Your task to perform on an android device: make emails show in primary in the gmail app Image 0: 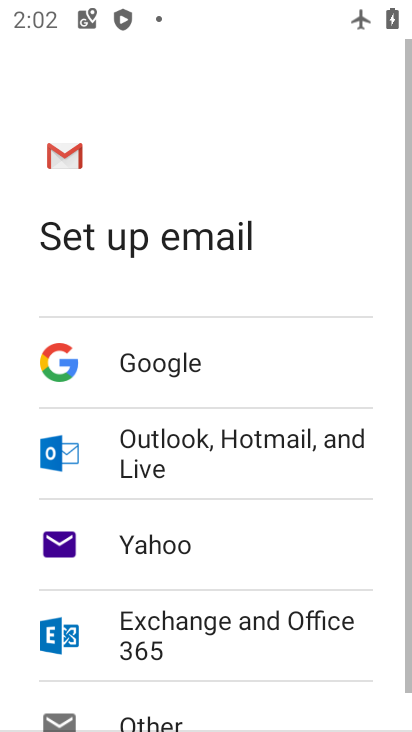
Step 0: press home button
Your task to perform on an android device: make emails show in primary in the gmail app Image 1: 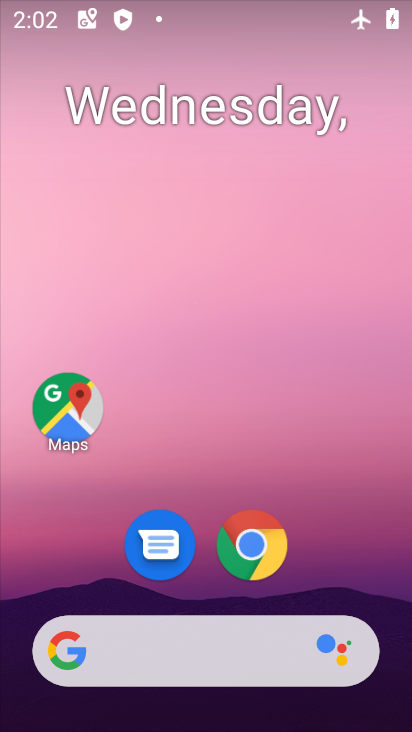
Step 1: drag from (361, 514) to (318, 14)
Your task to perform on an android device: make emails show in primary in the gmail app Image 2: 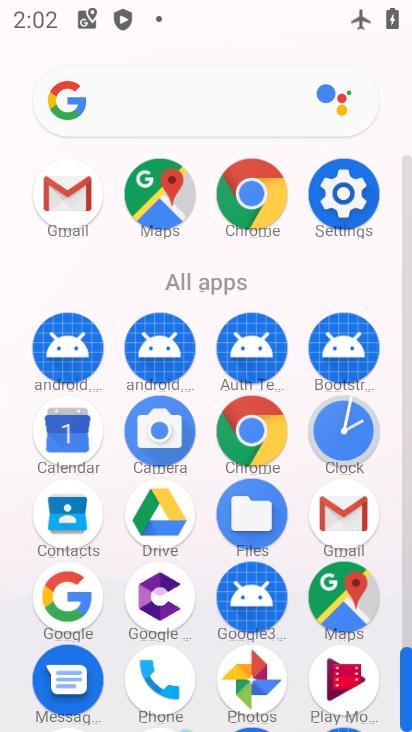
Step 2: click (74, 190)
Your task to perform on an android device: make emails show in primary in the gmail app Image 3: 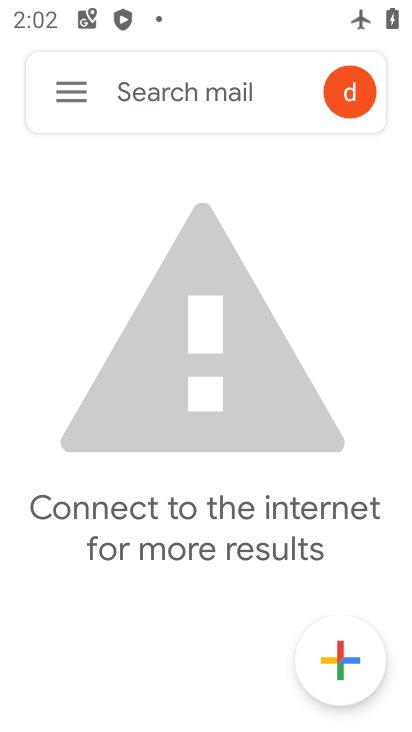
Step 3: click (53, 105)
Your task to perform on an android device: make emails show in primary in the gmail app Image 4: 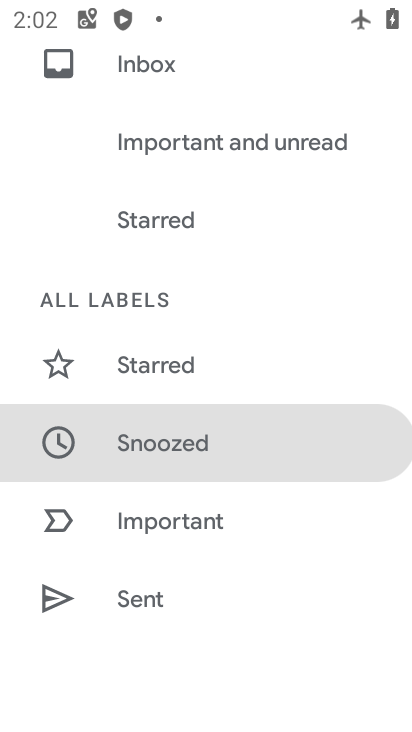
Step 4: drag from (188, 519) to (251, 70)
Your task to perform on an android device: make emails show in primary in the gmail app Image 5: 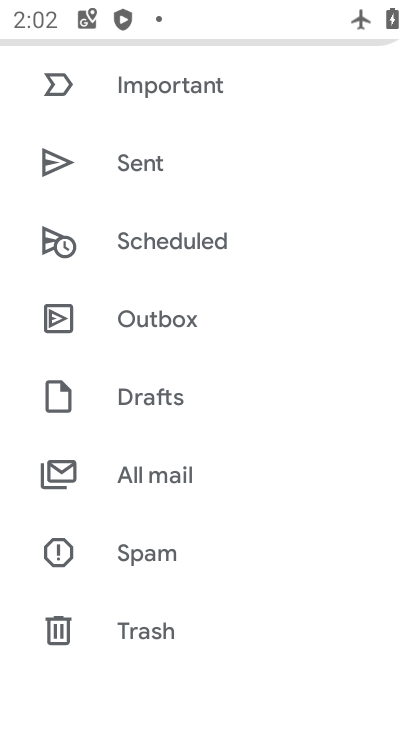
Step 5: drag from (147, 546) to (283, 95)
Your task to perform on an android device: make emails show in primary in the gmail app Image 6: 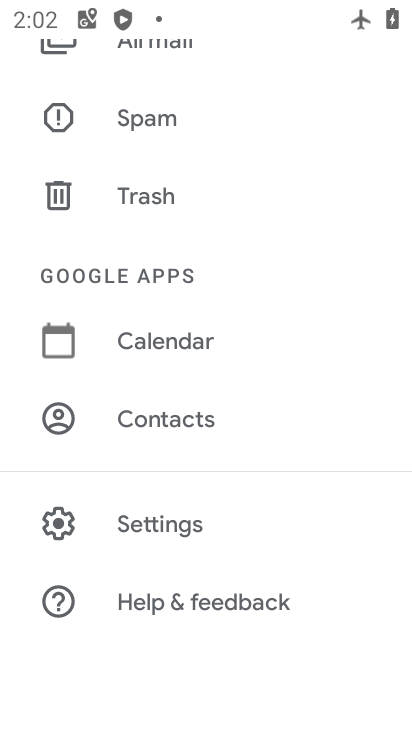
Step 6: click (180, 526)
Your task to perform on an android device: make emails show in primary in the gmail app Image 7: 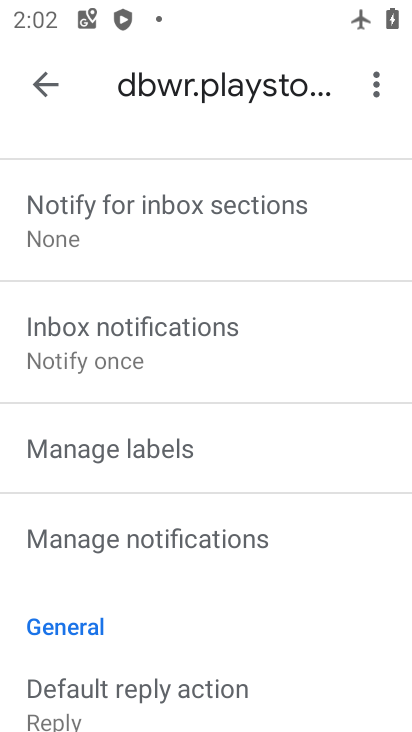
Step 7: click (138, 528)
Your task to perform on an android device: make emails show in primary in the gmail app Image 8: 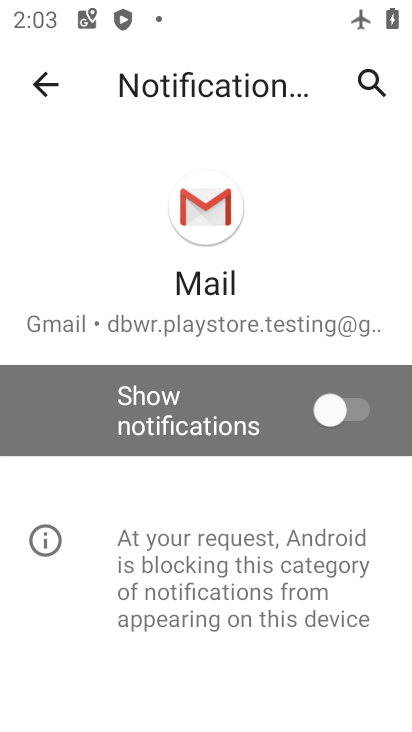
Step 8: click (46, 87)
Your task to perform on an android device: make emails show in primary in the gmail app Image 9: 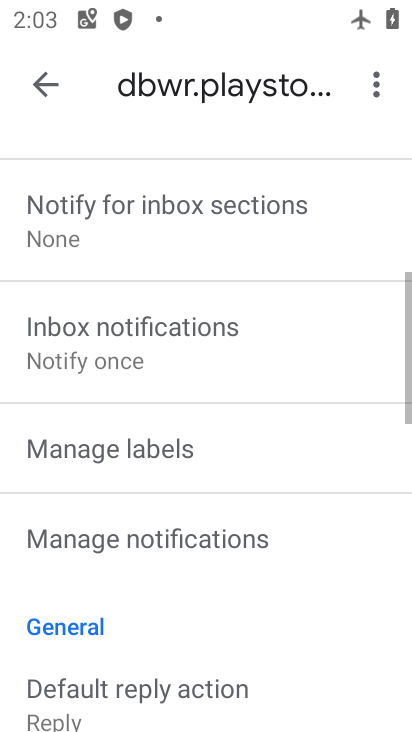
Step 9: drag from (48, 93) to (231, 531)
Your task to perform on an android device: make emails show in primary in the gmail app Image 10: 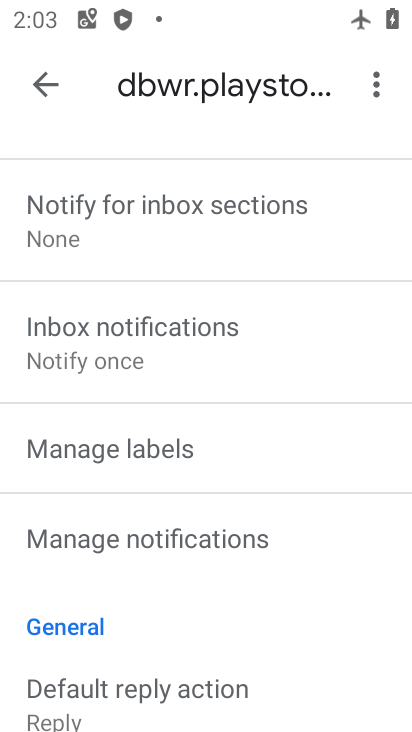
Step 10: drag from (272, 255) to (233, 731)
Your task to perform on an android device: make emails show in primary in the gmail app Image 11: 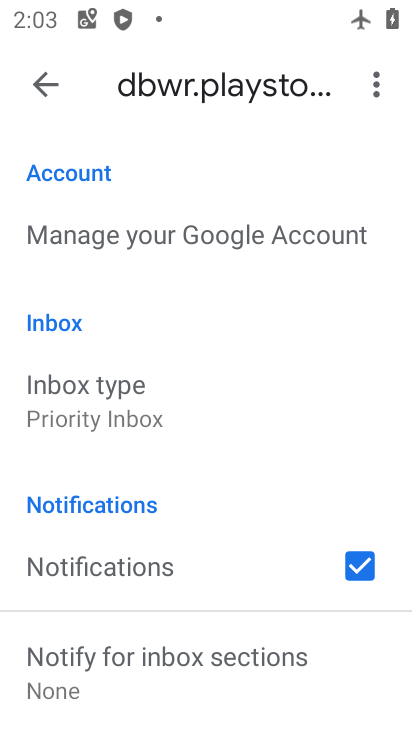
Step 11: drag from (184, 319) to (140, 731)
Your task to perform on an android device: make emails show in primary in the gmail app Image 12: 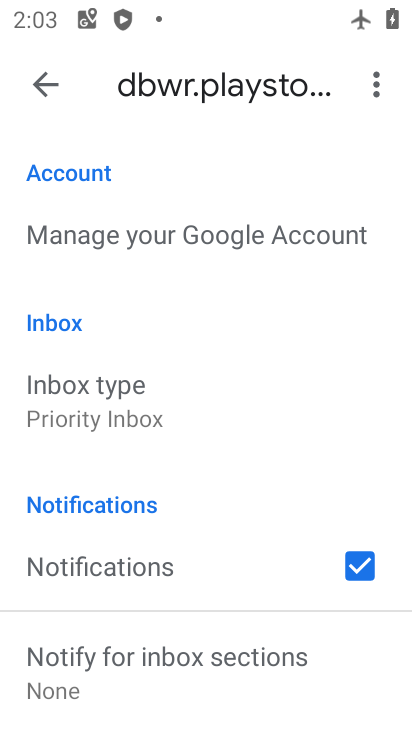
Step 12: click (127, 391)
Your task to perform on an android device: make emails show in primary in the gmail app Image 13: 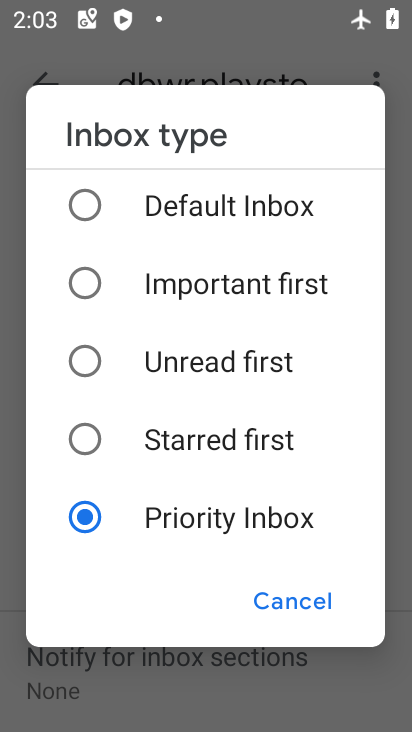
Step 13: click (200, 225)
Your task to perform on an android device: make emails show in primary in the gmail app Image 14: 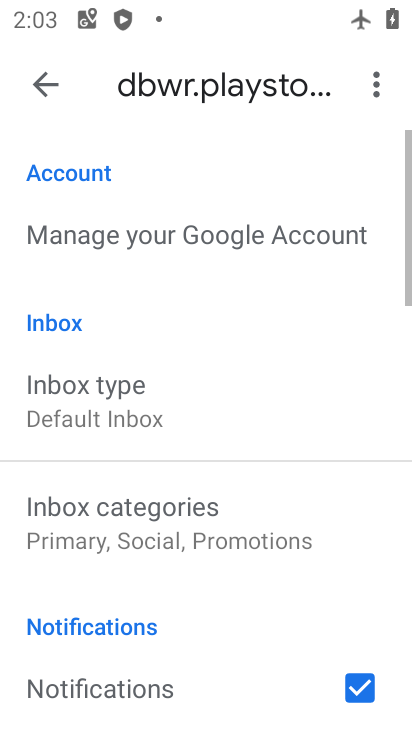
Step 14: click (157, 530)
Your task to perform on an android device: make emails show in primary in the gmail app Image 15: 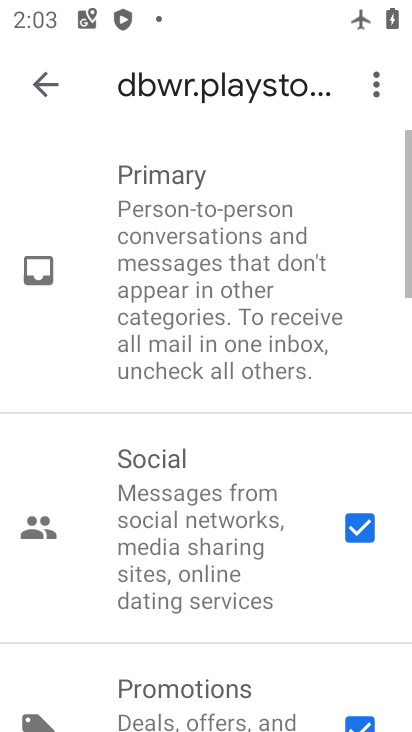
Step 15: task complete